Your task to perform on an android device: turn off notifications settings in the gmail app Image 0: 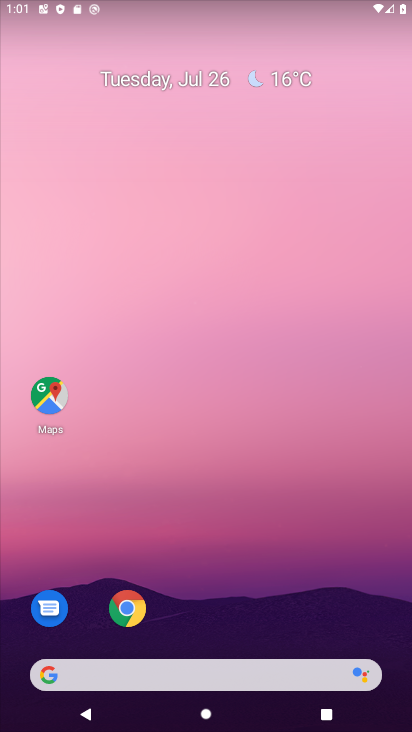
Step 0: drag from (294, 592) to (209, 135)
Your task to perform on an android device: turn off notifications settings in the gmail app Image 1: 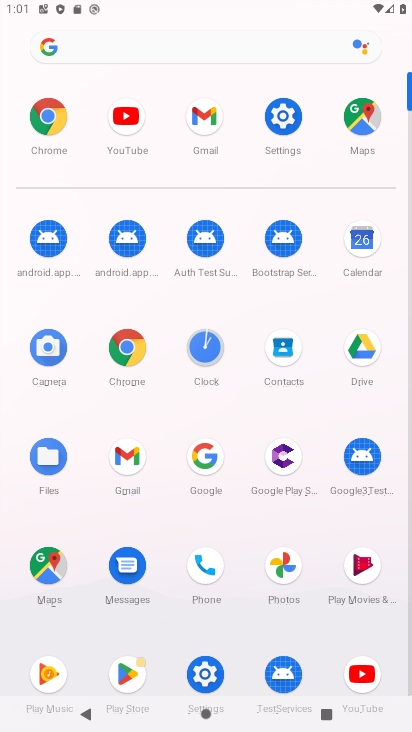
Step 1: click (143, 480)
Your task to perform on an android device: turn off notifications settings in the gmail app Image 2: 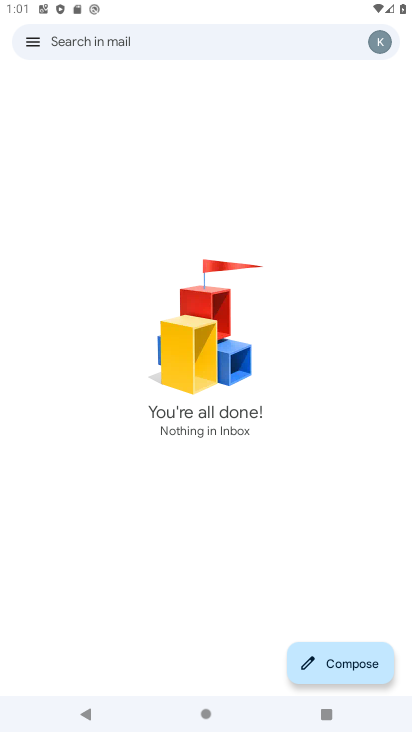
Step 2: task complete